Your task to perform on an android device: manage bookmarks in the chrome app Image 0: 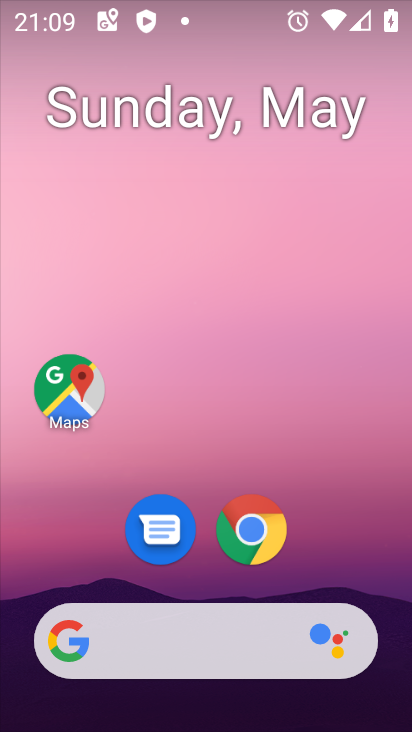
Step 0: click (257, 537)
Your task to perform on an android device: manage bookmarks in the chrome app Image 1: 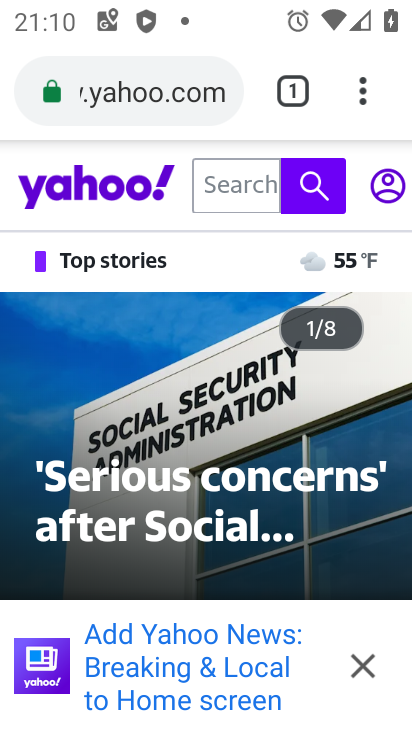
Step 1: click (367, 93)
Your task to perform on an android device: manage bookmarks in the chrome app Image 2: 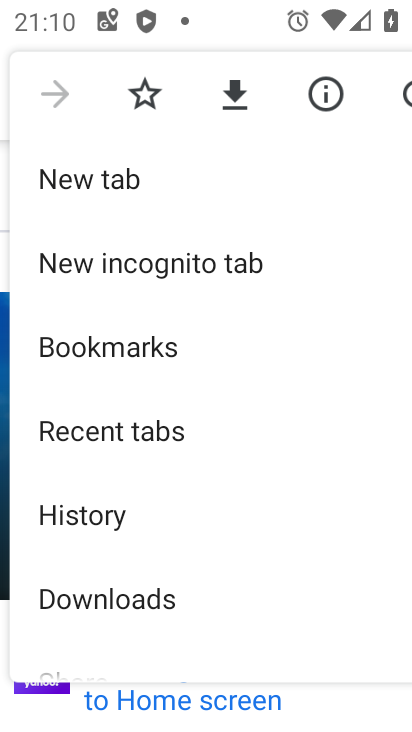
Step 2: click (110, 351)
Your task to perform on an android device: manage bookmarks in the chrome app Image 3: 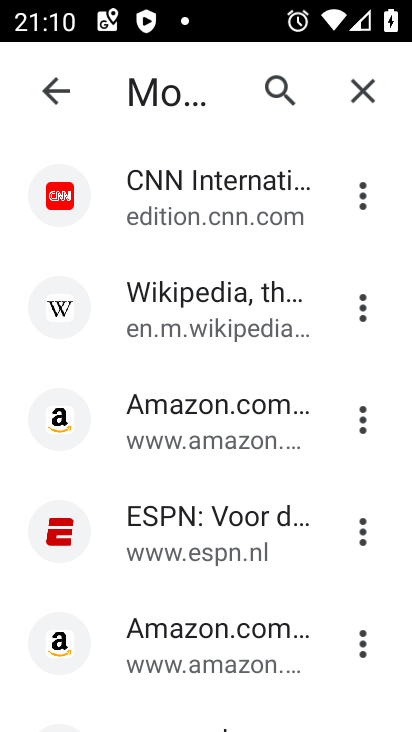
Step 3: click (364, 421)
Your task to perform on an android device: manage bookmarks in the chrome app Image 4: 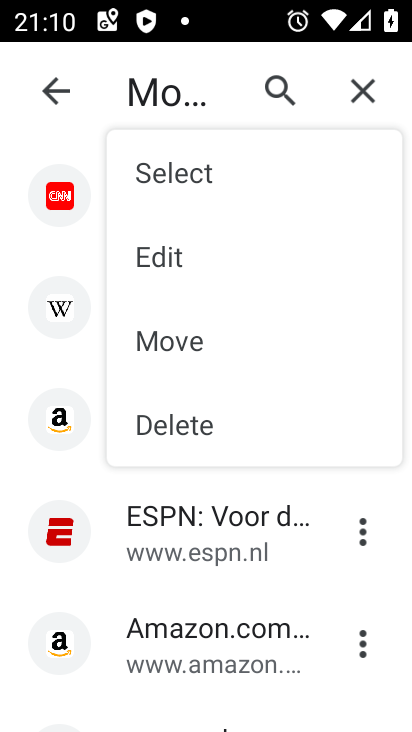
Step 4: click (180, 429)
Your task to perform on an android device: manage bookmarks in the chrome app Image 5: 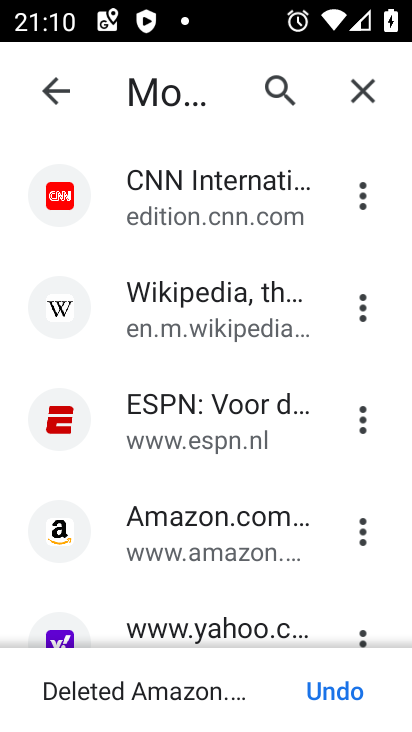
Step 5: task complete